Your task to perform on an android device: change alarm snooze length Image 0: 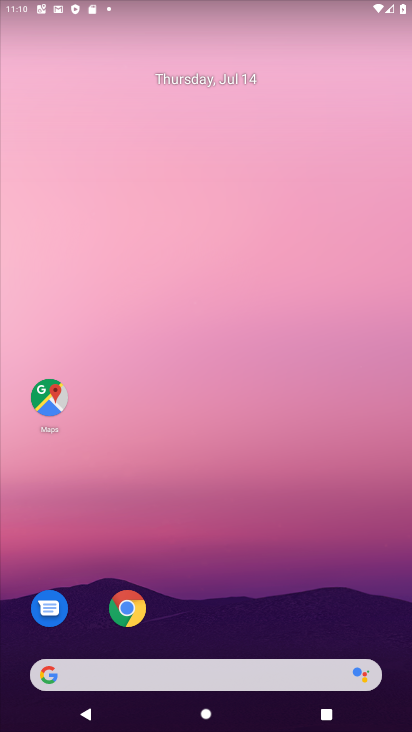
Step 0: drag from (315, 577) to (225, 37)
Your task to perform on an android device: change alarm snooze length Image 1: 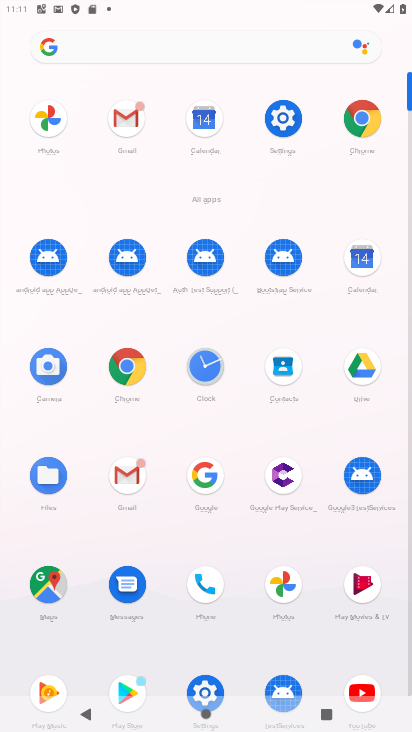
Step 1: click (206, 364)
Your task to perform on an android device: change alarm snooze length Image 2: 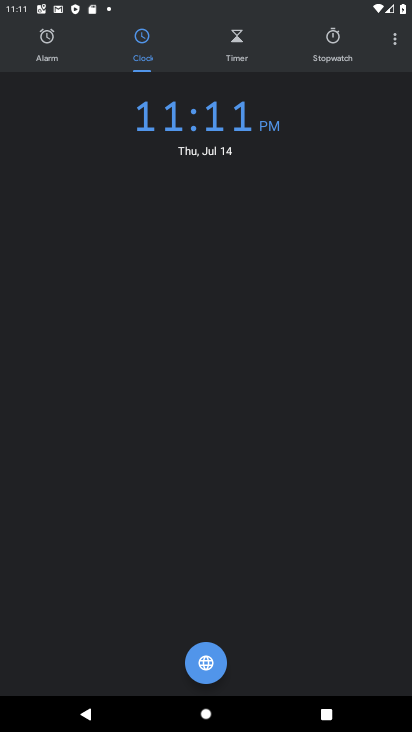
Step 2: click (400, 37)
Your task to perform on an android device: change alarm snooze length Image 3: 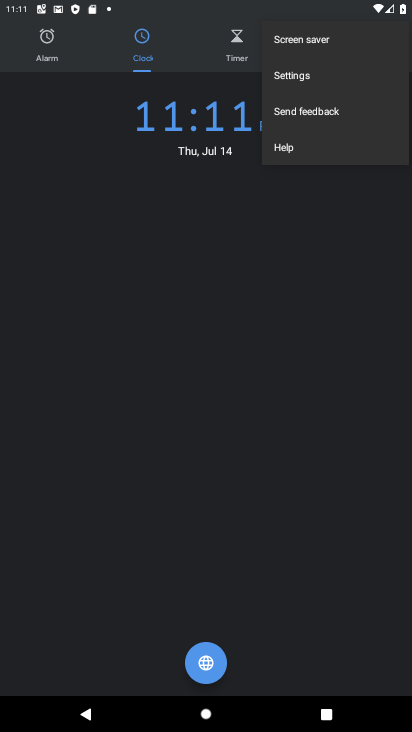
Step 3: click (298, 75)
Your task to perform on an android device: change alarm snooze length Image 4: 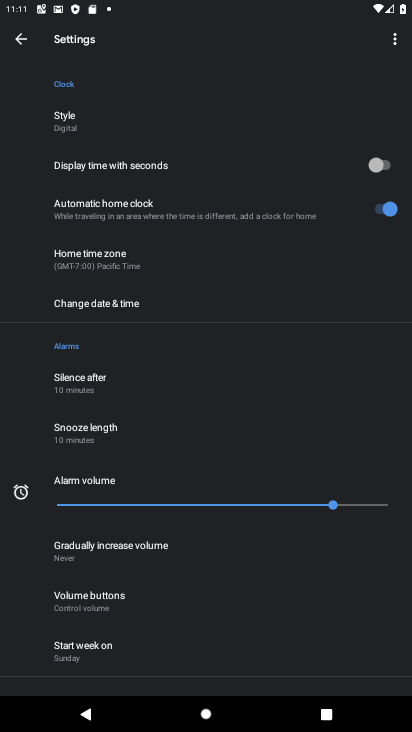
Step 4: drag from (163, 345) to (232, 662)
Your task to perform on an android device: change alarm snooze length Image 5: 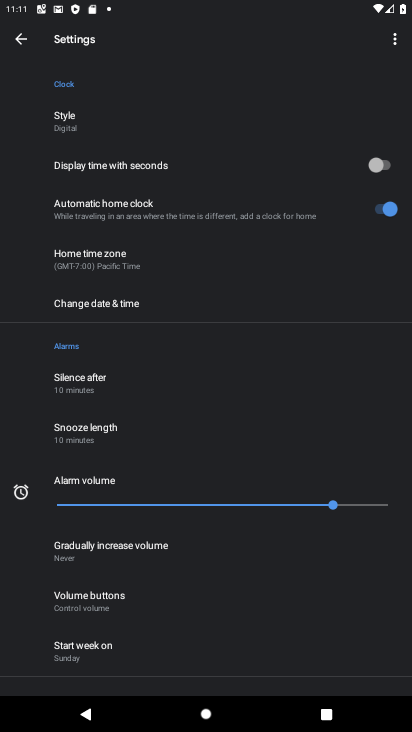
Step 5: click (102, 426)
Your task to perform on an android device: change alarm snooze length Image 6: 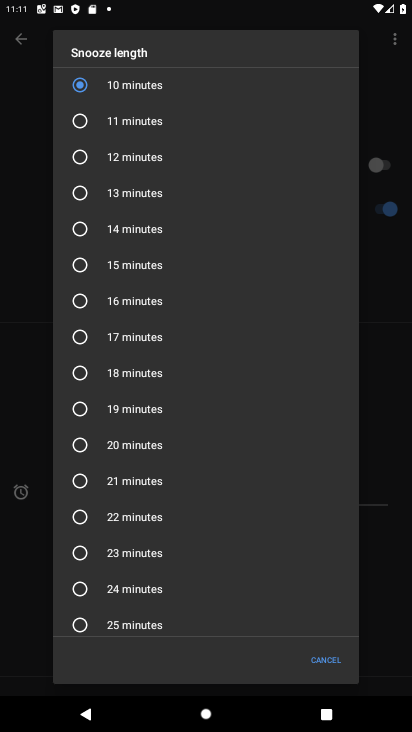
Step 6: click (116, 373)
Your task to perform on an android device: change alarm snooze length Image 7: 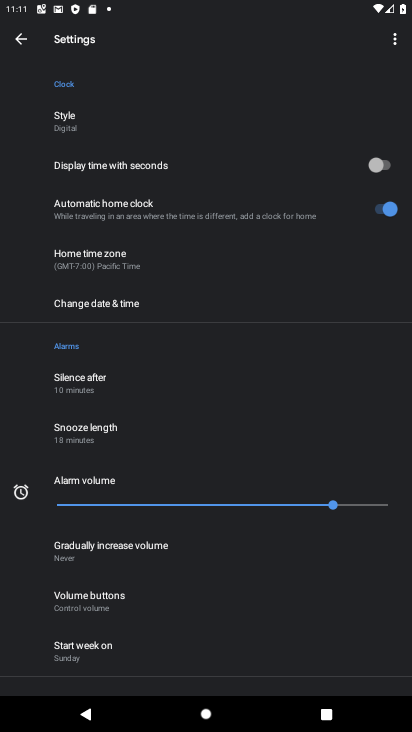
Step 7: task complete